Your task to perform on an android device: Go to Yahoo.com Image 0: 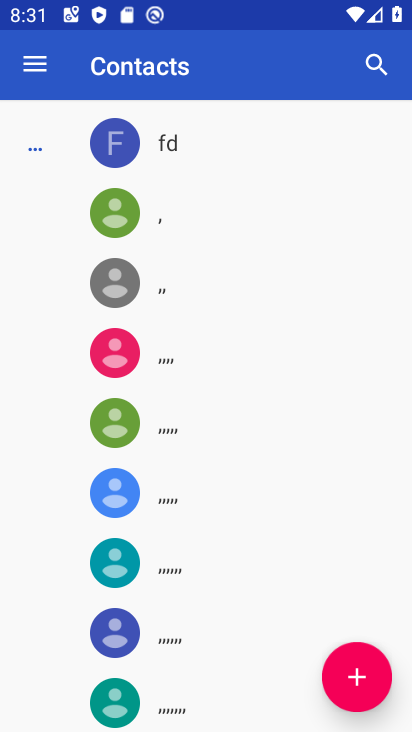
Step 0: press home button
Your task to perform on an android device: Go to Yahoo.com Image 1: 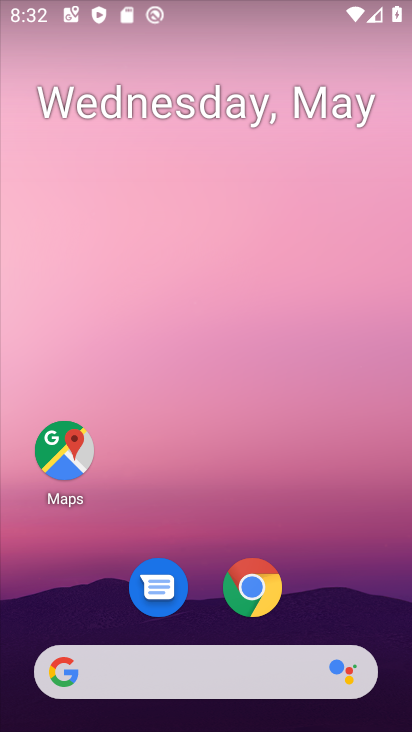
Step 1: click (254, 589)
Your task to perform on an android device: Go to Yahoo.com Image 2: 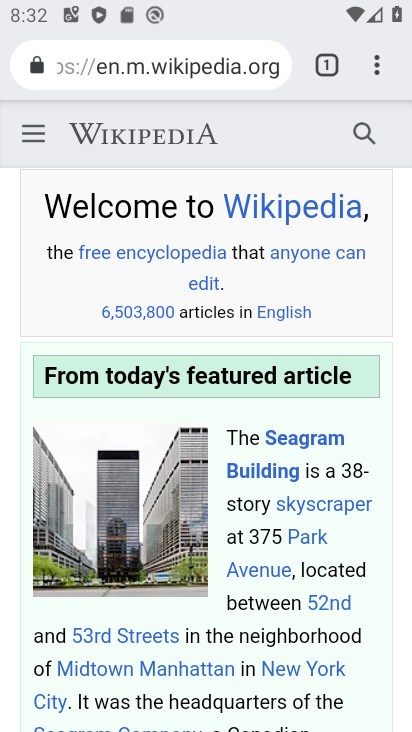
Step 2: click (253, 66)
Your task to perform on an android device: Go to Yahoo.com Image 3: 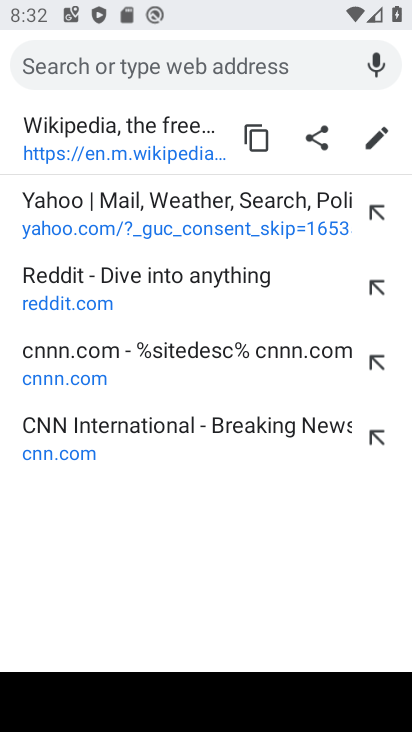
Step 3: type "yahoo .com"
Your task to perform on an android device: Go to Yahoo.com Image 4: 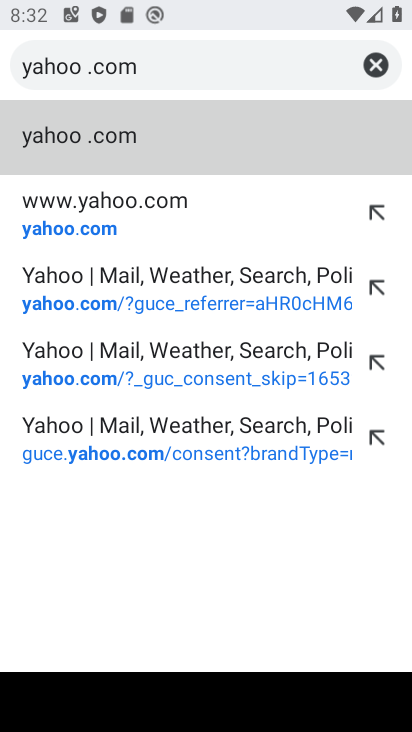
Step 4: click (71, 222)
Your task to perform on an android device: Go to Yahoo.com Image 5: 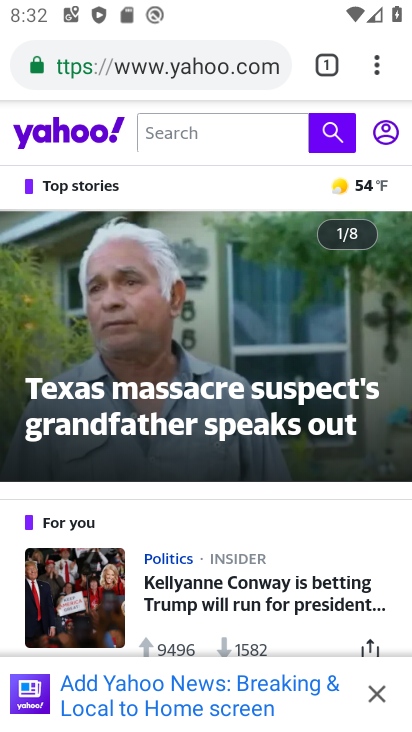
Step 5: task complete